Your task to perform on an android device: Go to Yahoo.com Image 0: 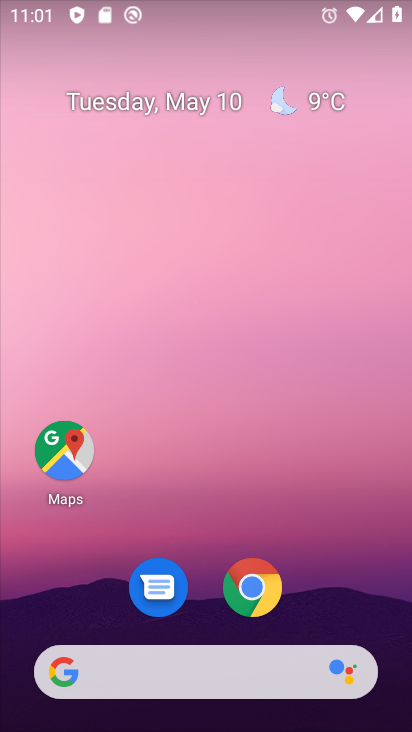
Step 0: click (260, 597)
Your task to perform on an android device: Go to Yahoo.com Image 1: 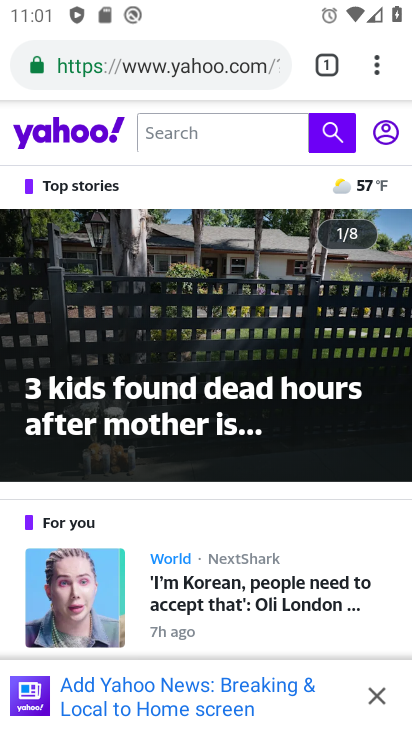
Step 1: task complete